Your task to perform on an android device: View the shopping cart on walmart.com. Search for macbook air on walmart.com, select the first entry, add it to the cart, then select checkout. Image 0: 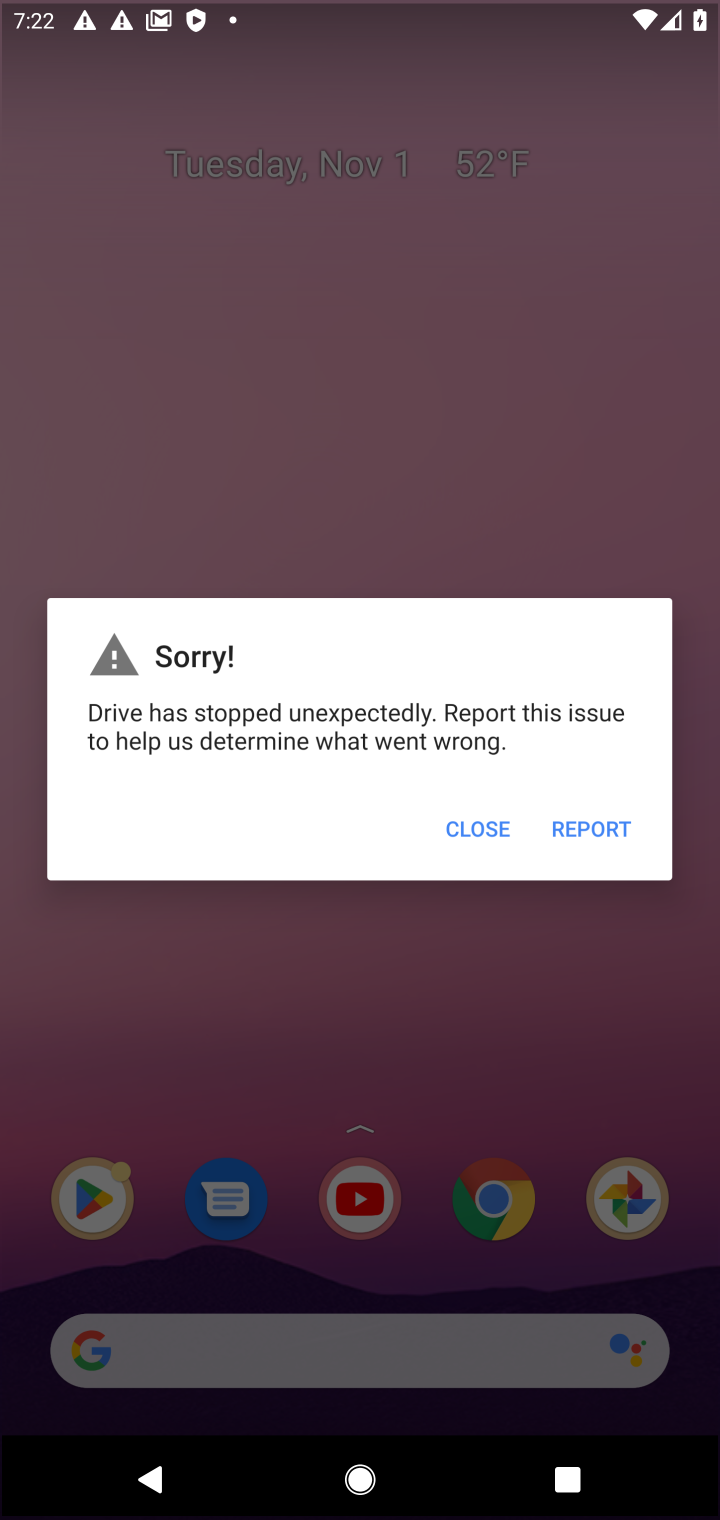
Step 0: click (496, 1222)
Your task to perform on an android device: View the shopping cart on walmart.com. Search for macbook air on walmart.com, select the first entry, add it to the cart, then select checkout. Image 1: 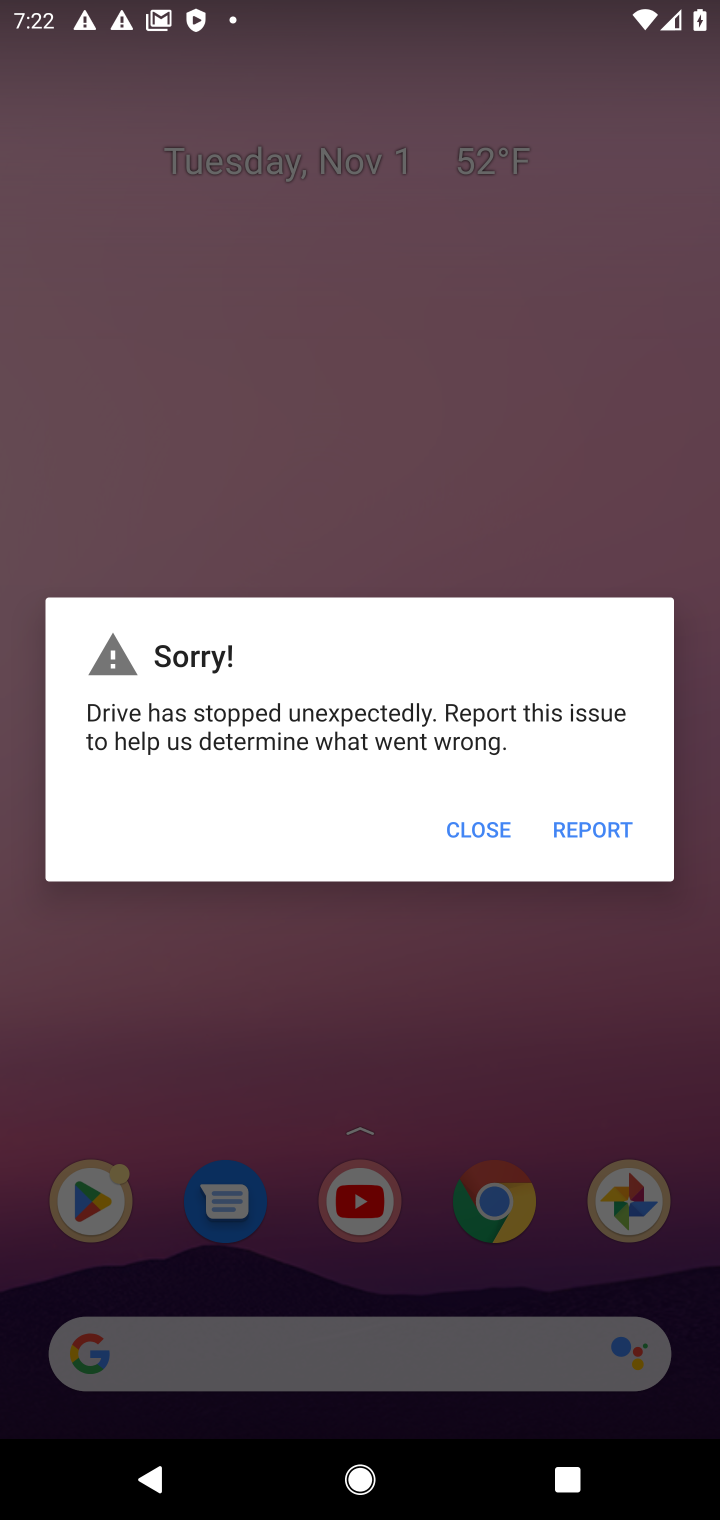
Step 1: press home button
Your task to perform on an android device: View the shopping cart on walmart.com. Search for macbook air on walmart.com, select the first entry, add it to the cart, then select checkout. Image 2: 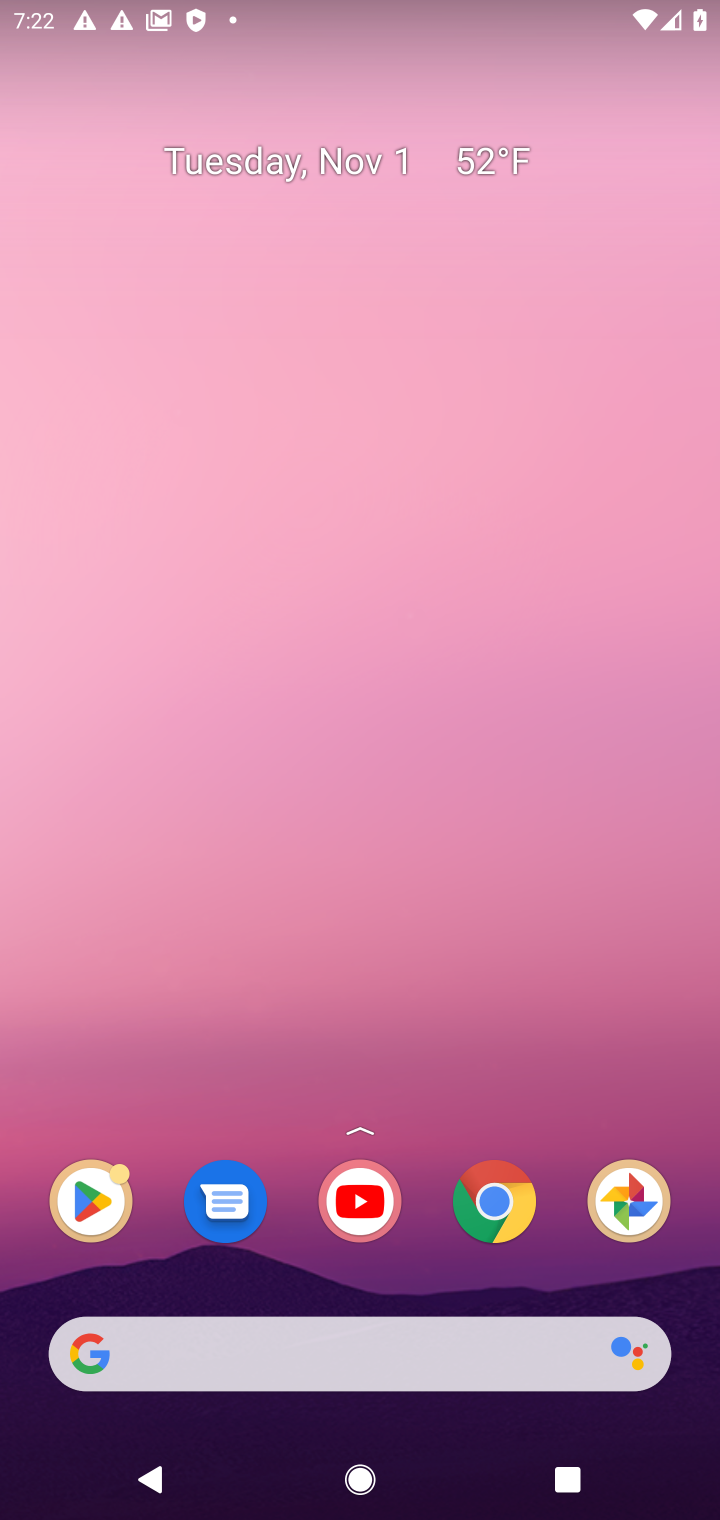
Step 2: click (463, 1189)
Your task to perform on an android device: View the shopping cart on walmart.com. Search for macbook air on walmart.com, select the first entry, add it to the cart, then select checkout. Image 3: 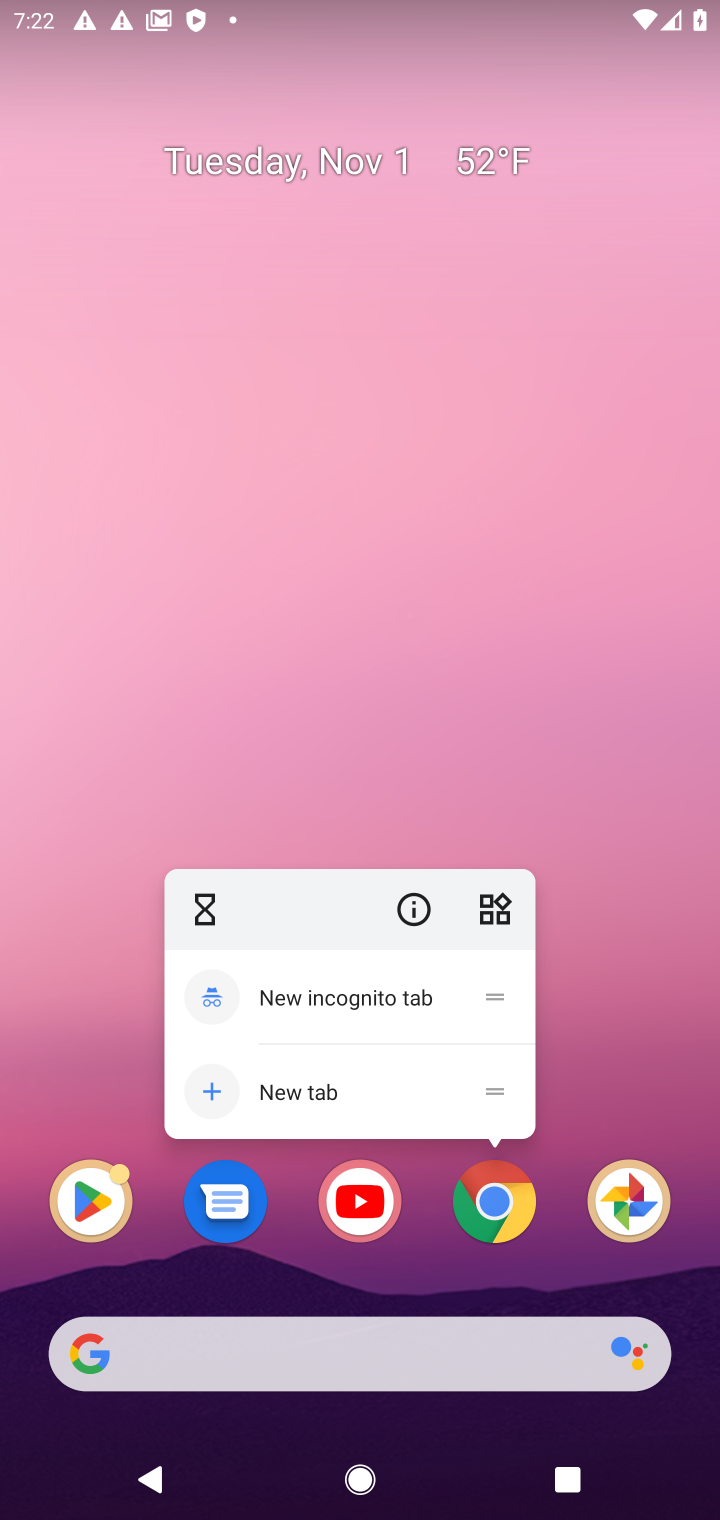
Step 3: click (496, 1200)
Your task to perform on an android device: View the shopping cart on walmart.com. Search for macbook air on walmart.com, select the first entry, add it to the cart, then select checkout. Image 4: 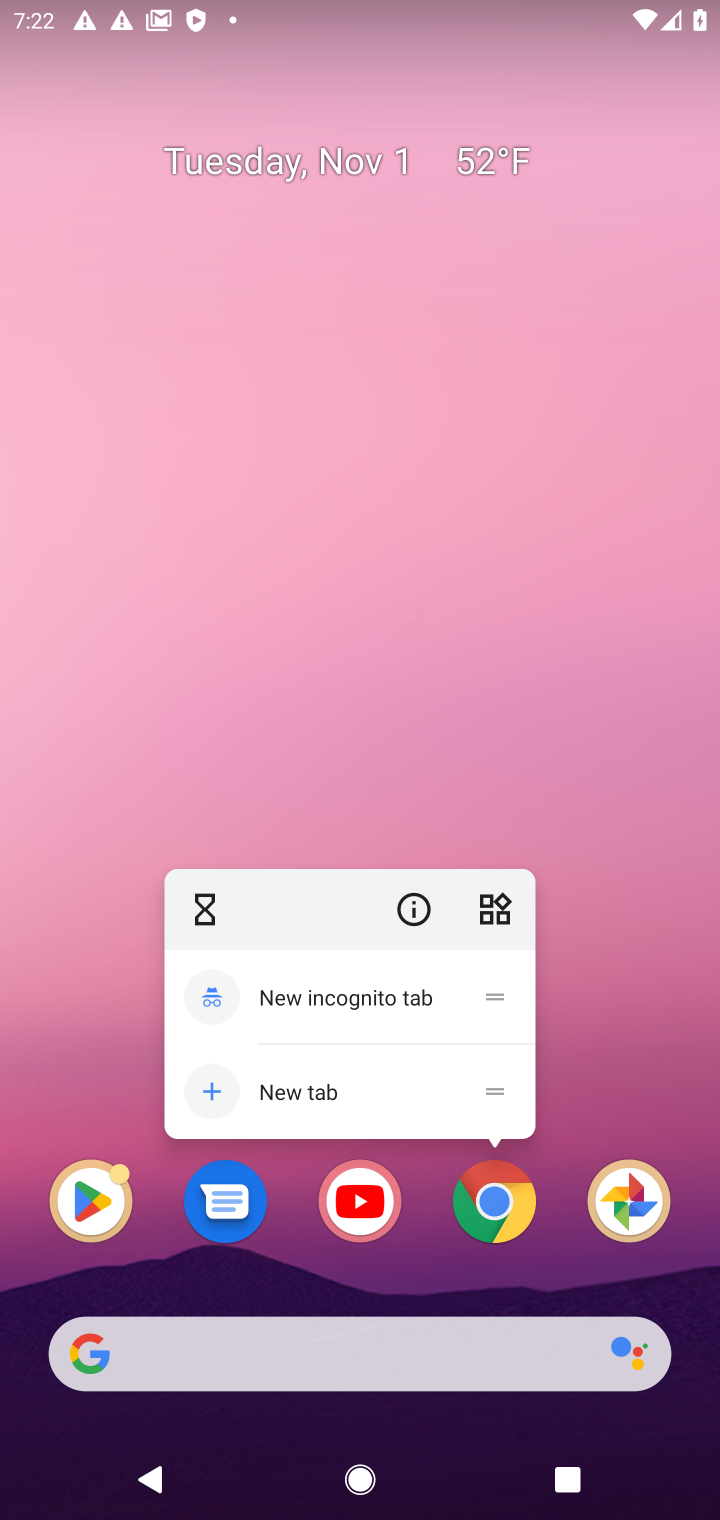
Step 4: click (469, 560)
Your task to perform on an android device: View the shopping cart on walmart.com. Search for macbook air on walmart.com, select the first entry, add it to the cart, then select checkout. Image 5: 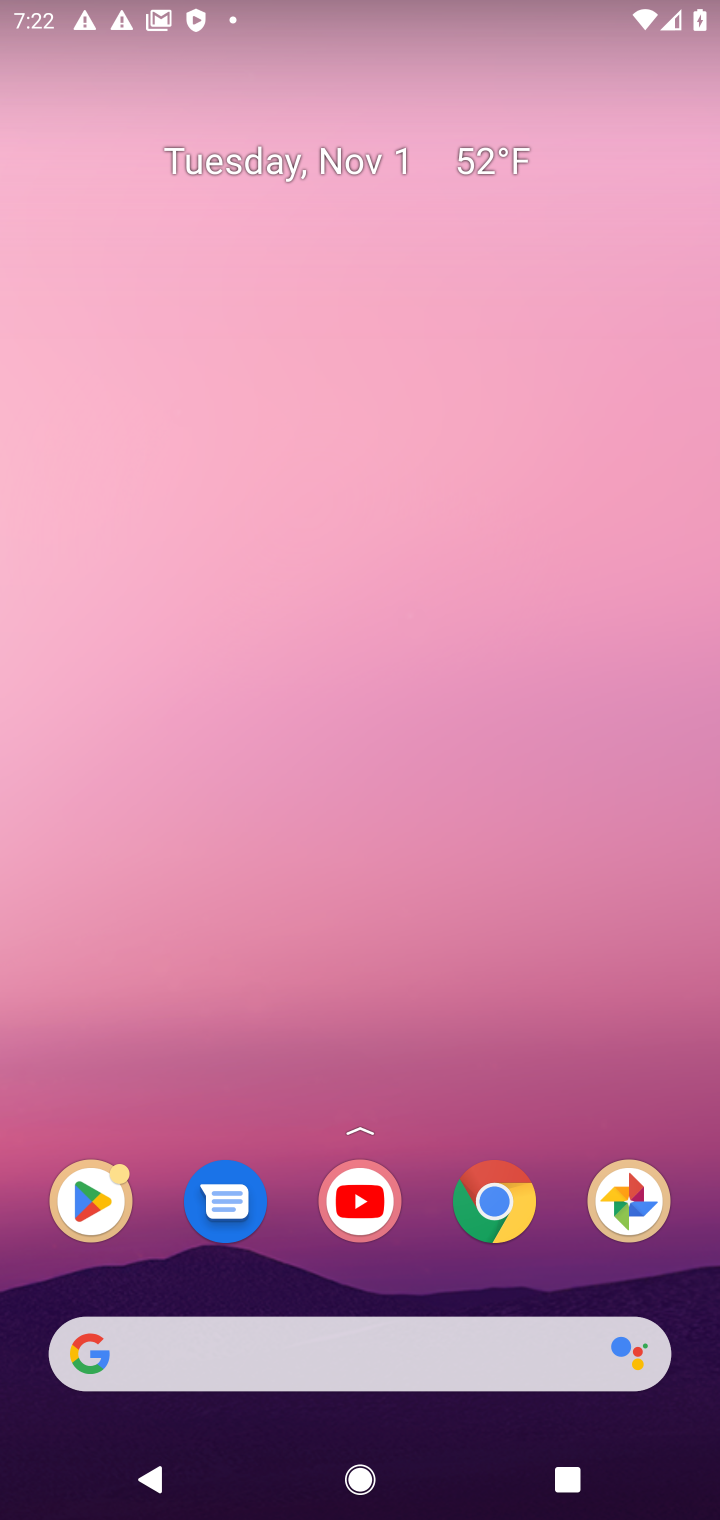
Step 5: click (508, 1230)
Your task to perform on an android device: View the shopping cart on walmart.com. Search for macbook air on walmart.com, select the first entry, add it to the cart, then select checkout. Image 6: 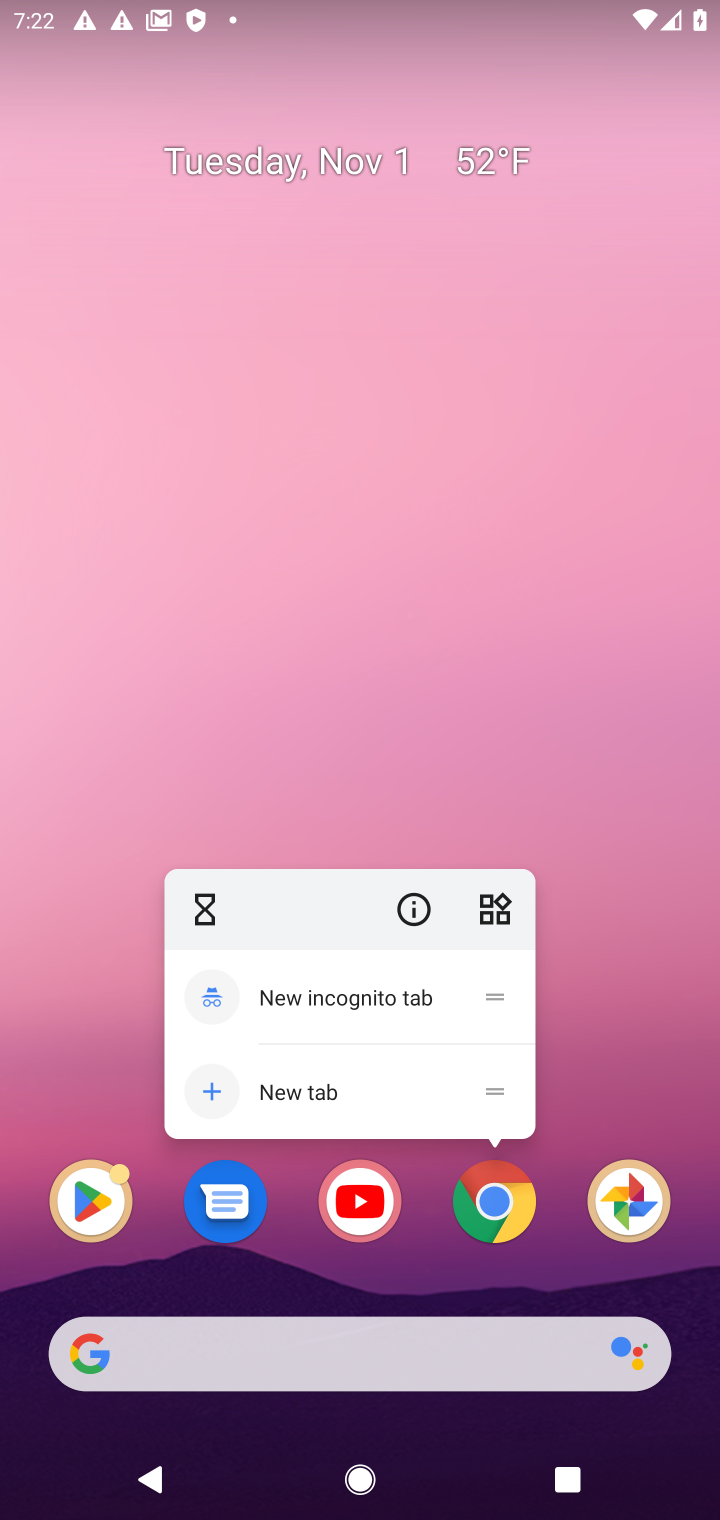
Step 6: click (508, 1234)
Your task to perform on an android device: View the shopping cart on walmart.com. Search for macbook air on walmart.com, select the first entry, add it to the cart, then select checkout. Image 7: 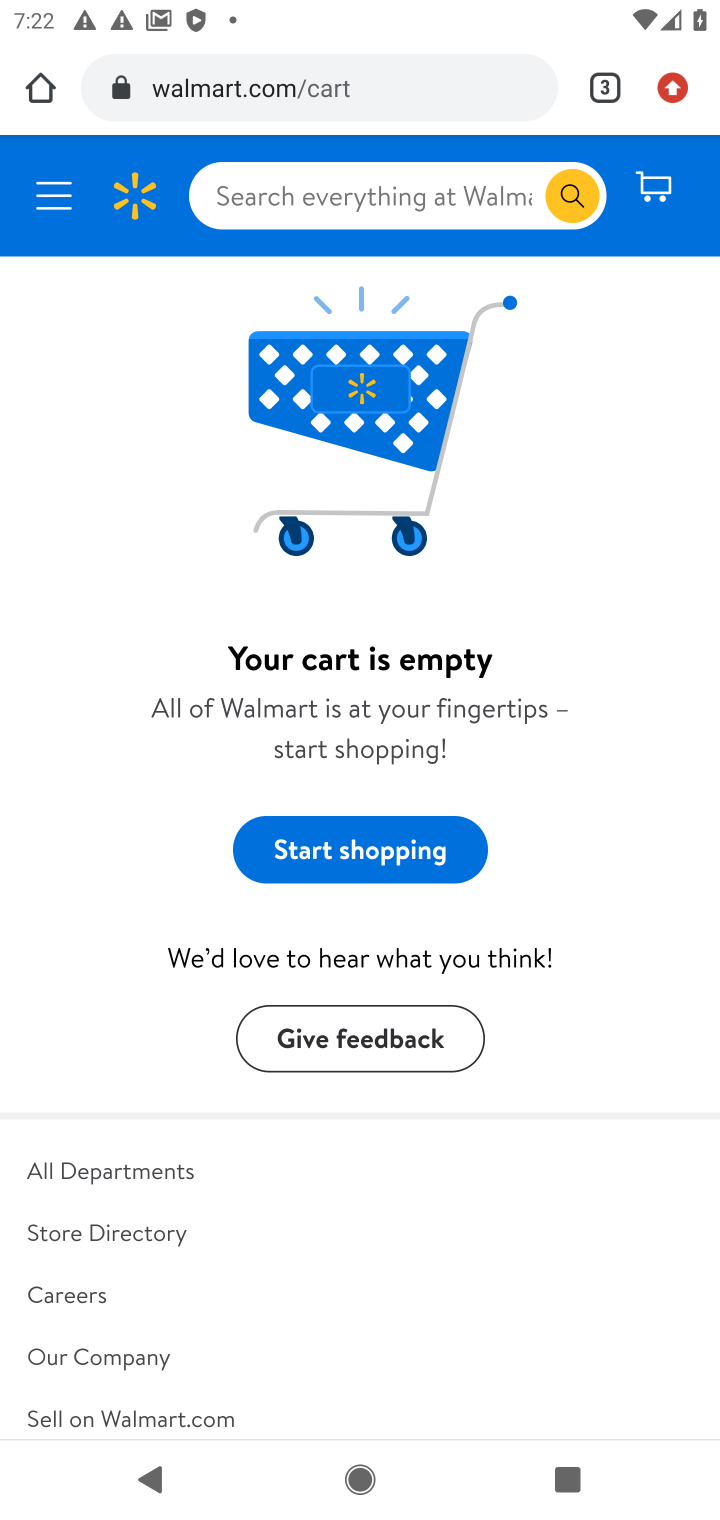
Step 7: click (651, 179)
Your task to perform on an android device: View the shopping cart on walmart.com. Search for macbook air on walmart.com, select the first entry, add it to the cart, then select checkout. Image 8: 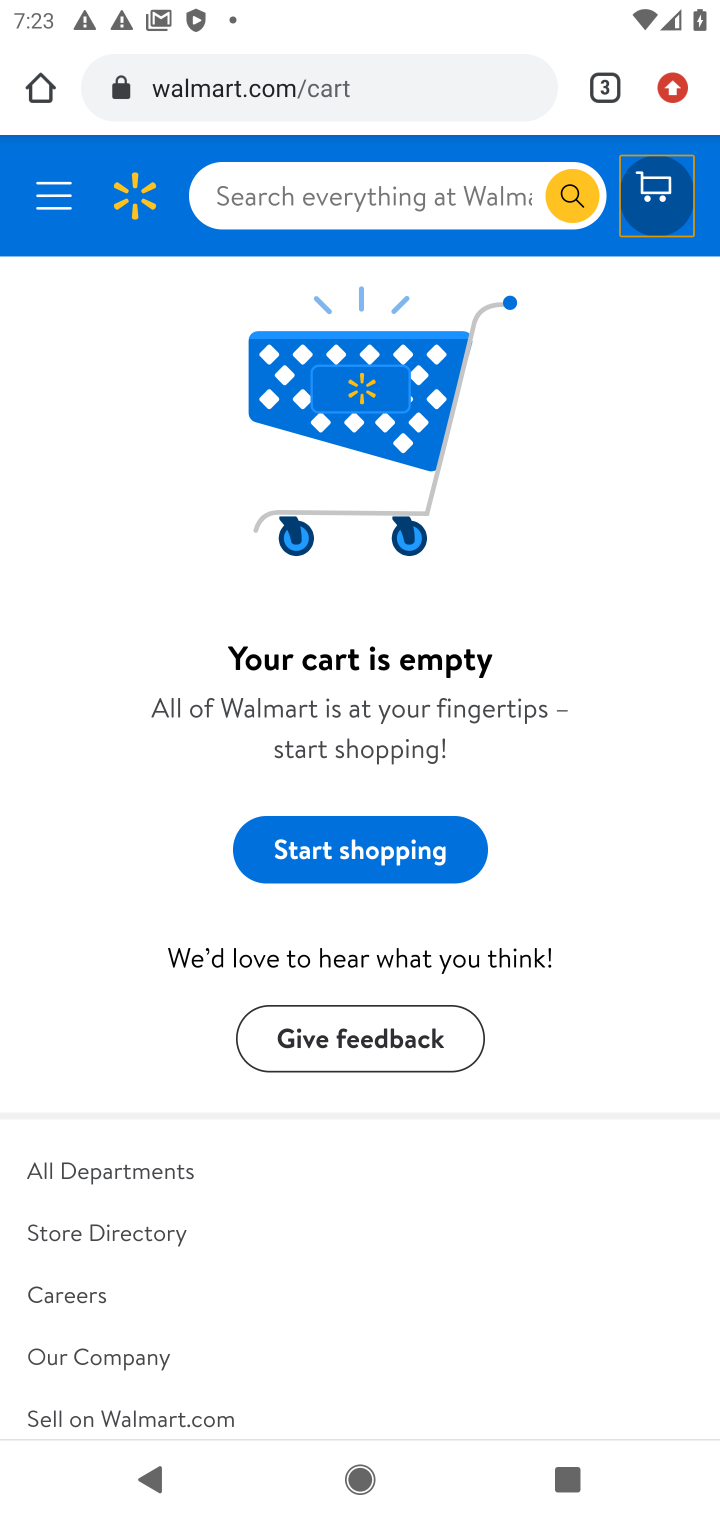
Step 8: click (655, 217)
Your task to perform on an android device: View the shopping cart on walmart.com. Search for macbook air on walmart.com, select the first entry, add it to the cart, then select checkout. Image 9: 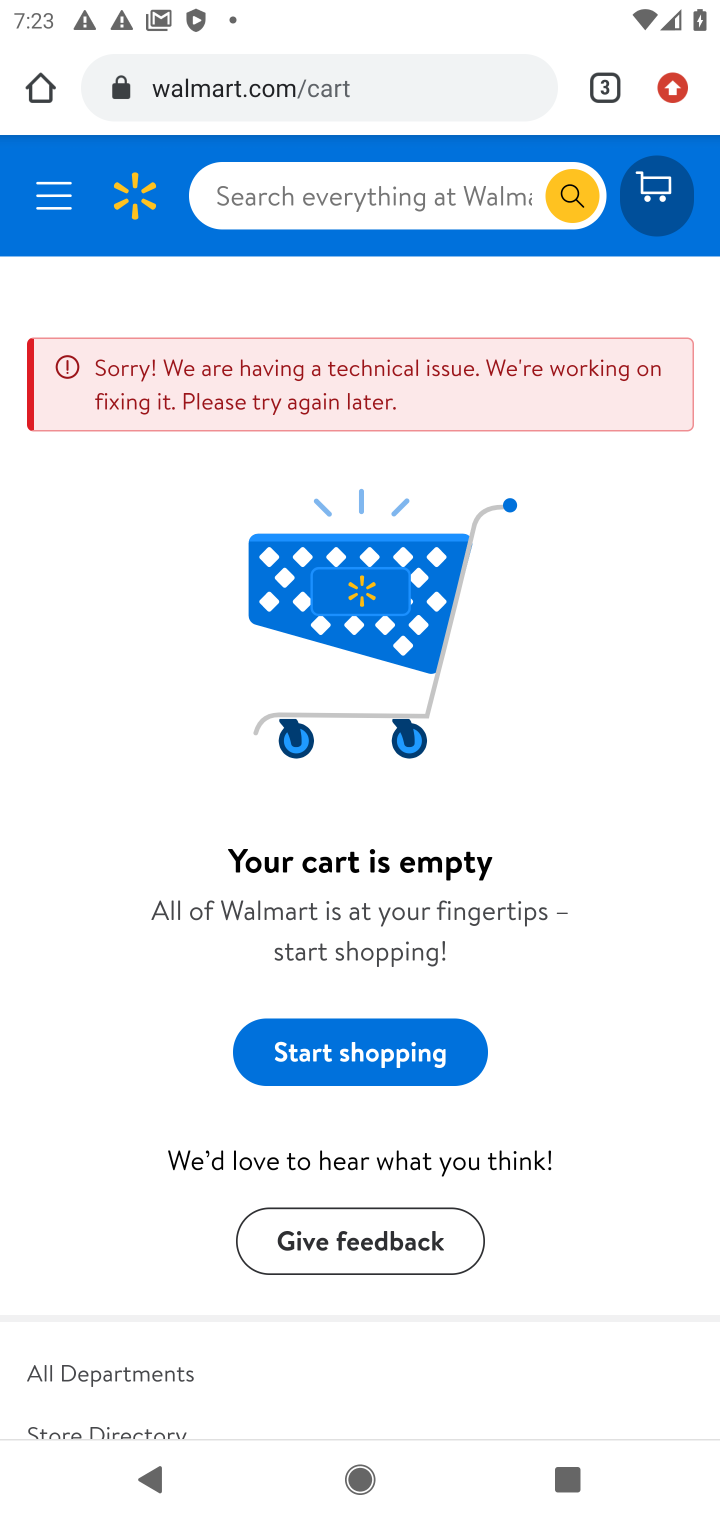
Step 9: click (333, 182)
Your task to perform on an android device: View the shopping cart on walmart.com. Search for macbook air on walmart.com, select the first entry, add it to the cart, then select checkout. Image 10: 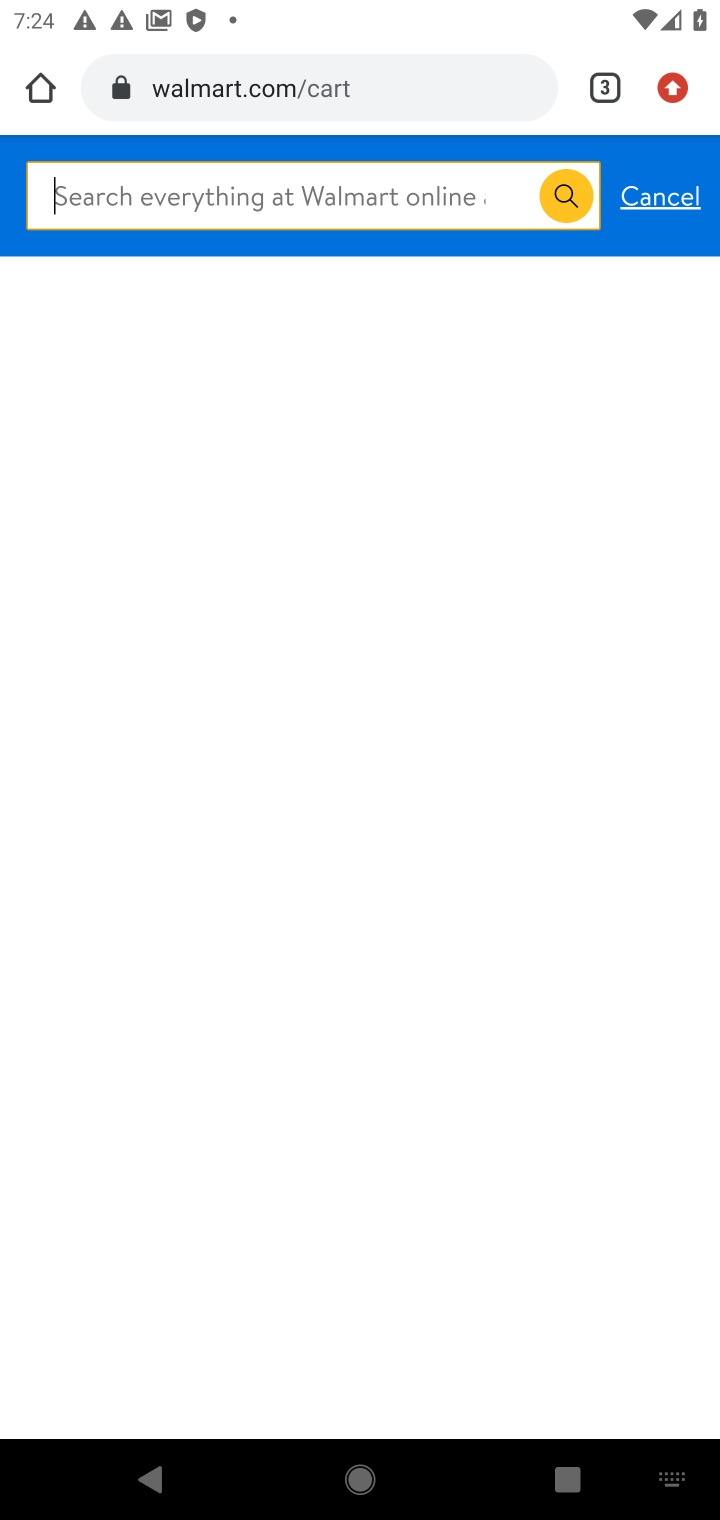
Step 10: type "macbook air"
Your task to perform on an android device: View the shopping cart on walmart.com. Search for macbook air on walmart.com, select the first entry, add it to the cart, then select checkout. Image 11: 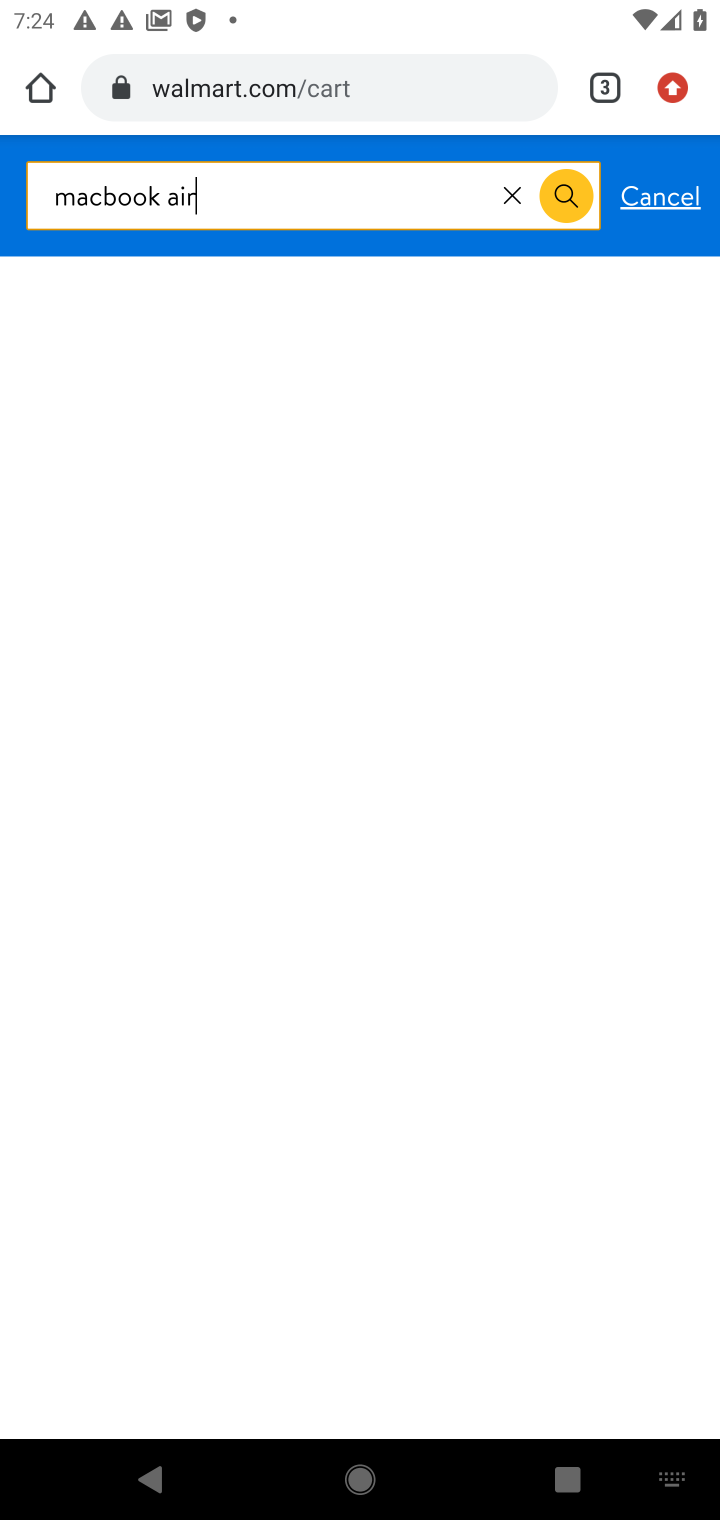
Step 11: type ""
Your task to perform on an android device: View the shopping cart on walmart.com. Search for macbook air on walmart.com, select the first entry, add it to the cart, then select checkout. Image 12: 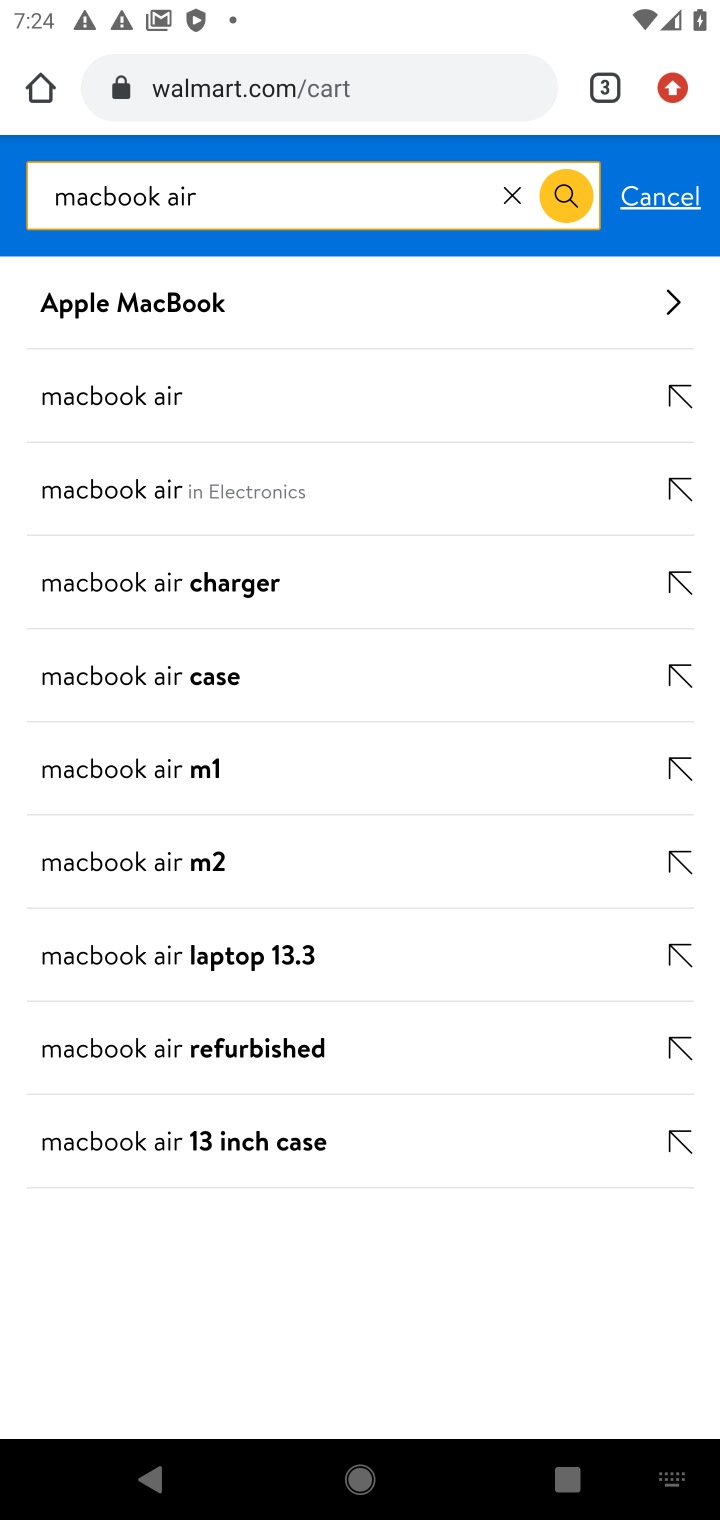
Step 12: click (577, 209)
Your task to perform on an android device: View the shopping cart on walmart.com. Search for macbook air on walmart.com, select the first entry, add it to the cart, then select checkout. Image 13: 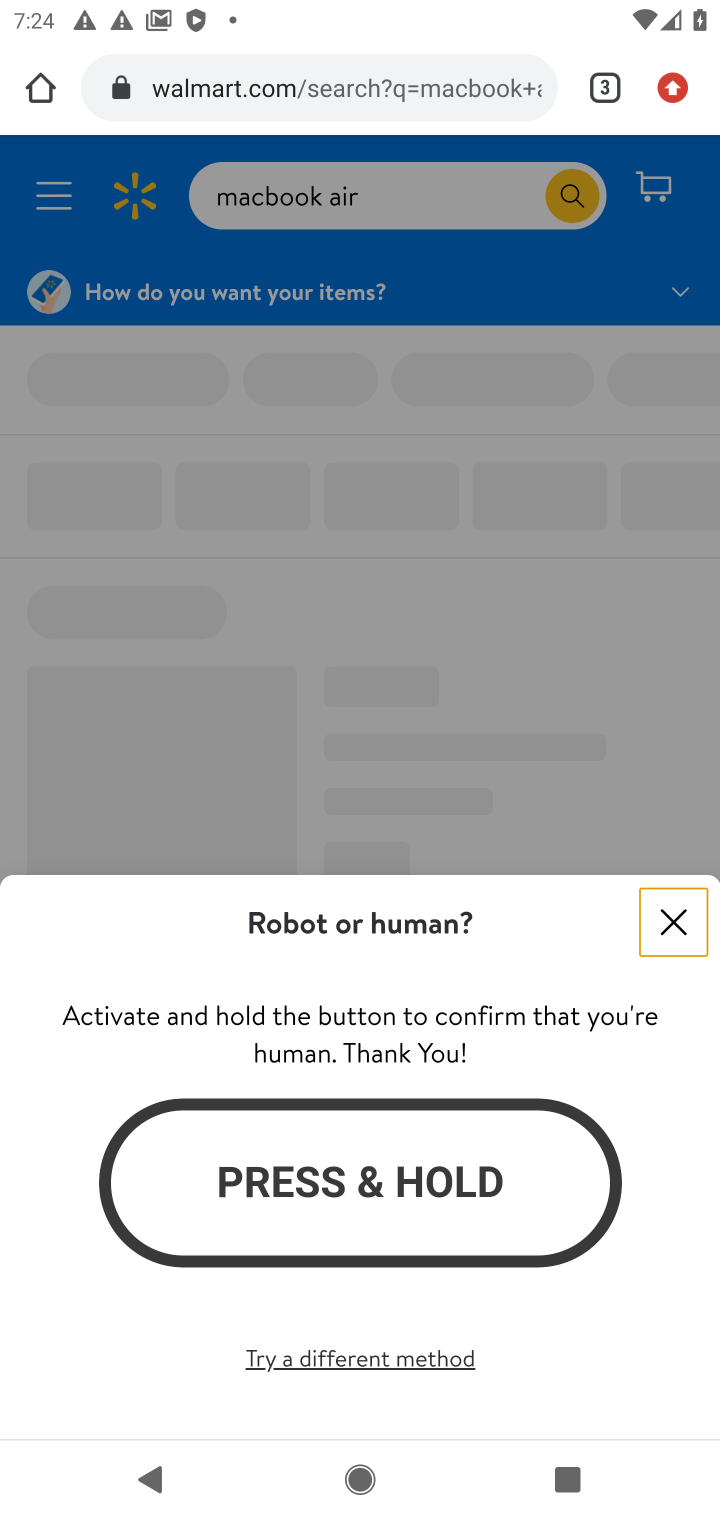
Step 13: click (381, 1148)
Your task to perform on an android device: View the shopping cart on walmart.com. Search for macbook air on walmart.com, select the first entry, add it to the cart, then select checkout. Image 14: 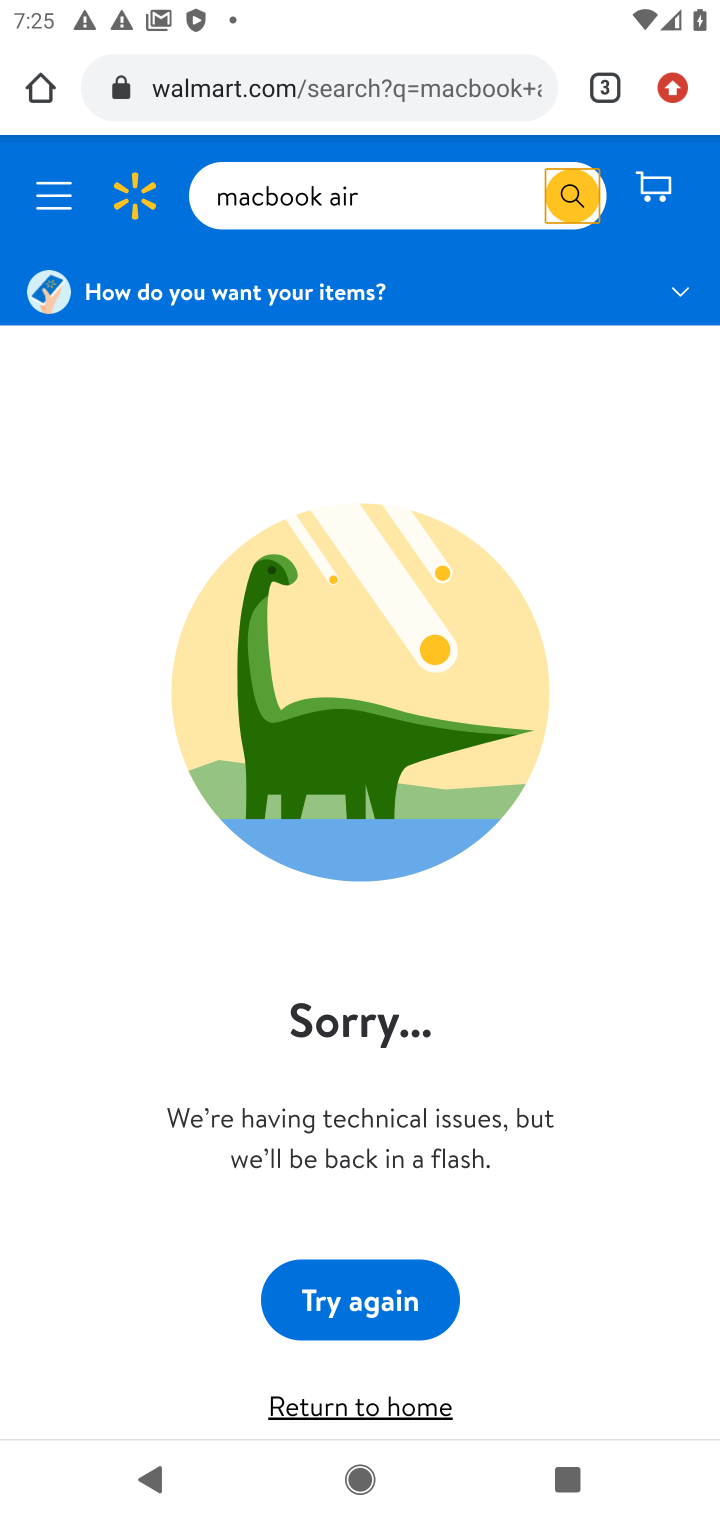
Step 14: click (569, 203)
Your task to perform on an android device: View the shopping cart on walmart.com. Search for macbook air on walmart.com, select the first entry, add it to the cart, then select checkout. Image 15: 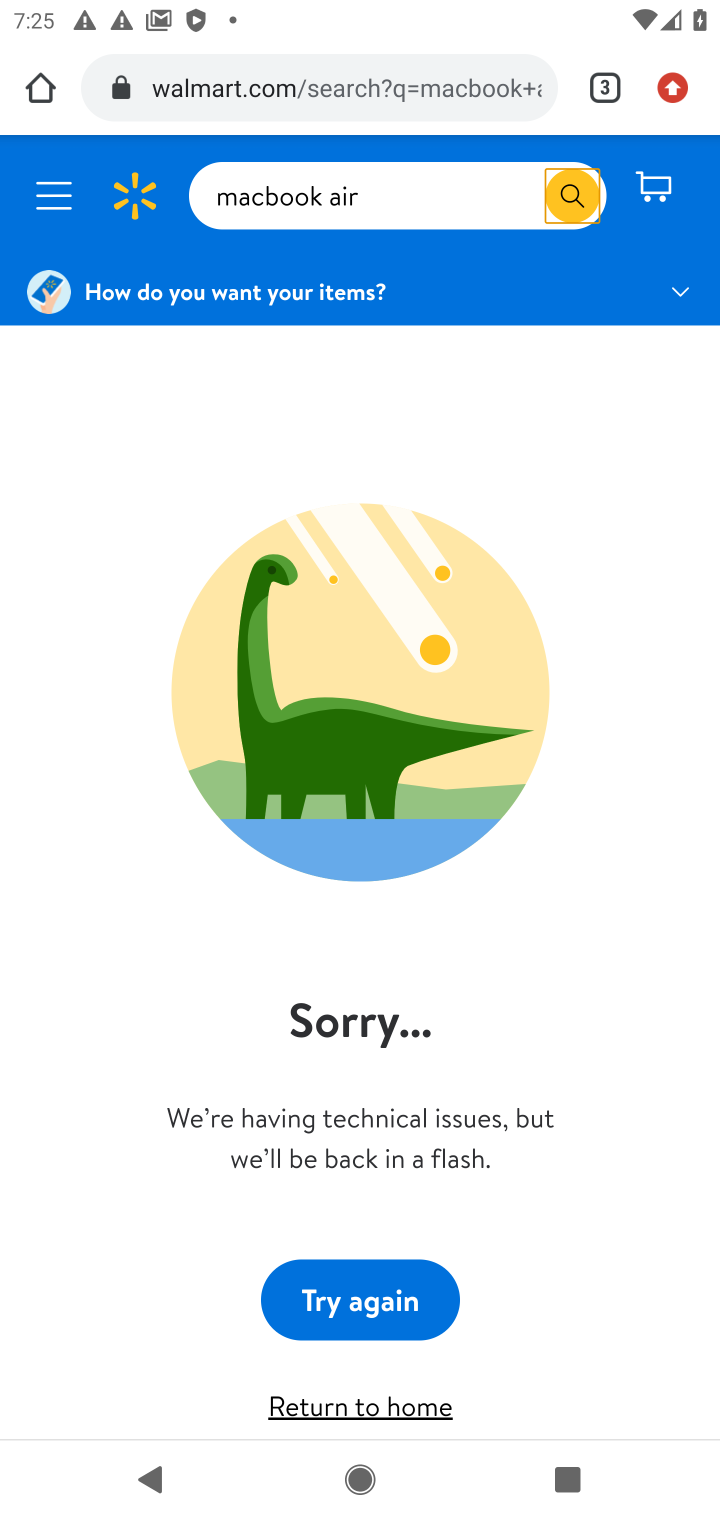
Step 15: task complete